Your task to perform on an android device: find snoozed emails in the gmail app Image 0: 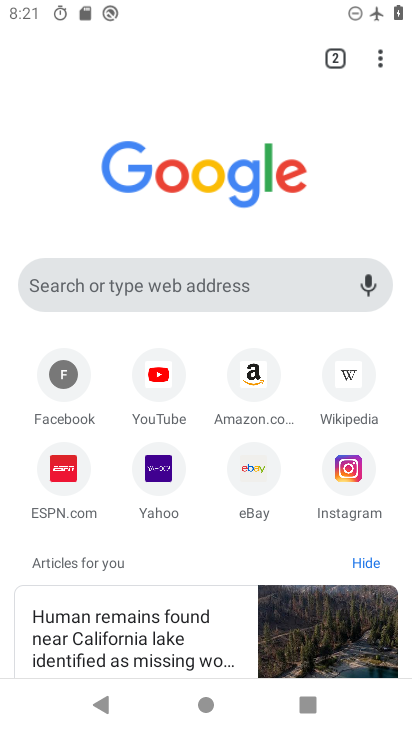
Step 0: task impossible